Your task to perform on an android device: open device folders in google photos Image 0: 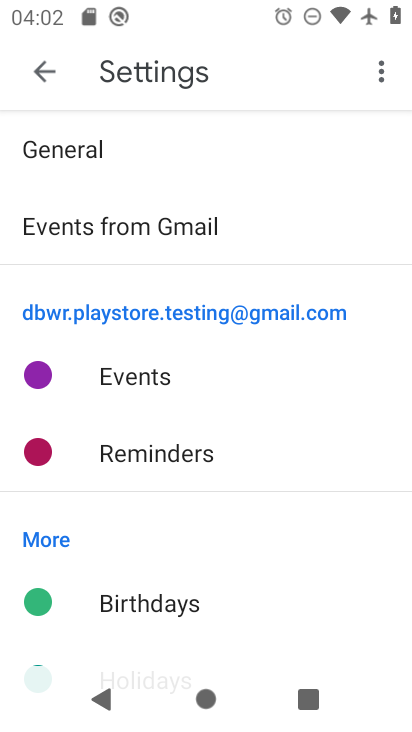
Step 0: press home button
Your task to perform on an android device: open device folders in google photos Image 1: 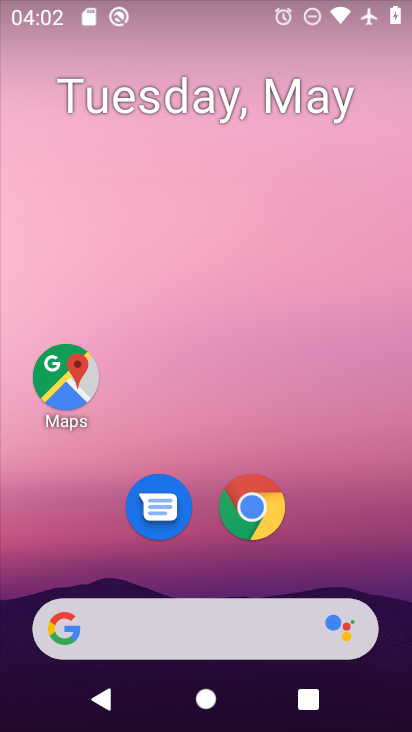
Step 1: drag from (204, 561) to (217, 169)
Your task to perform on an android device: open device folders in google photos Image 2: 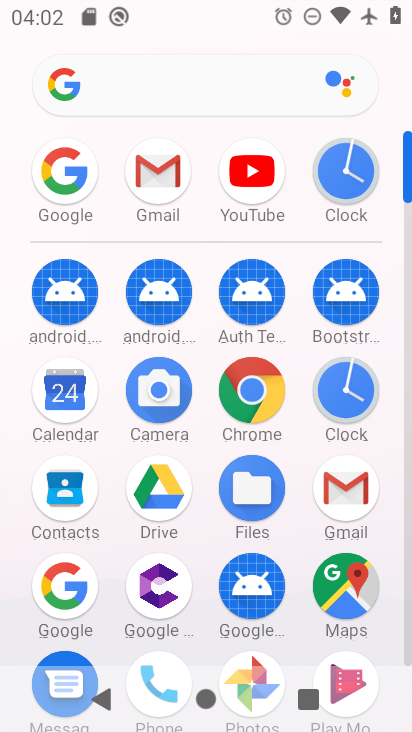
Step 2: drag from (198, 579) to (211, 270)
Your task to perform on an android device: open device folders in google photos Image 3: 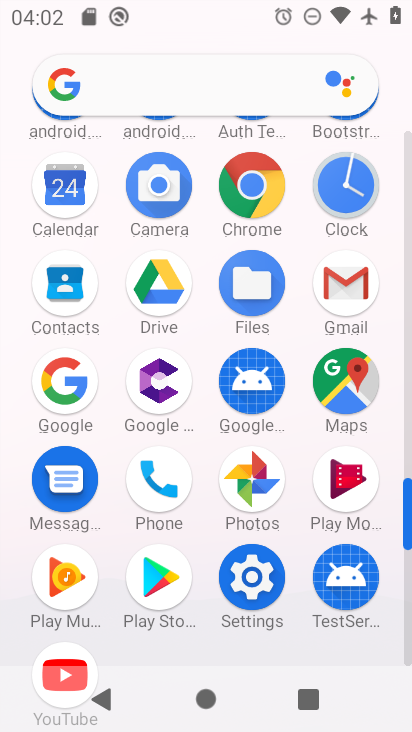
Step 3: click (247, 465)
Your task to perform on an android device: open device folders in google photos Image 4: 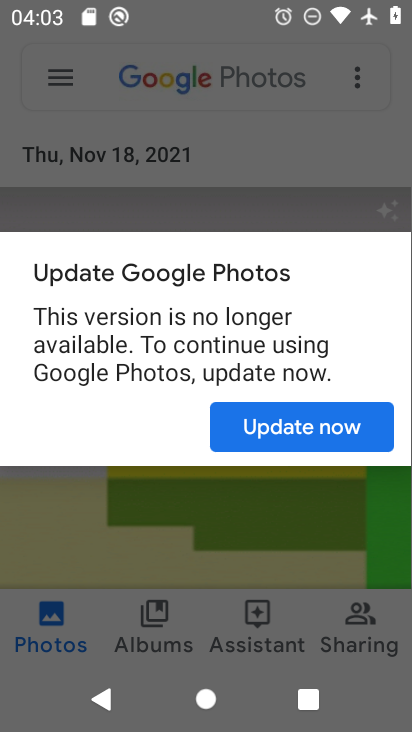
Step 4: press home button
Your task to perform on an android device: open device folders in google photos Image 5: 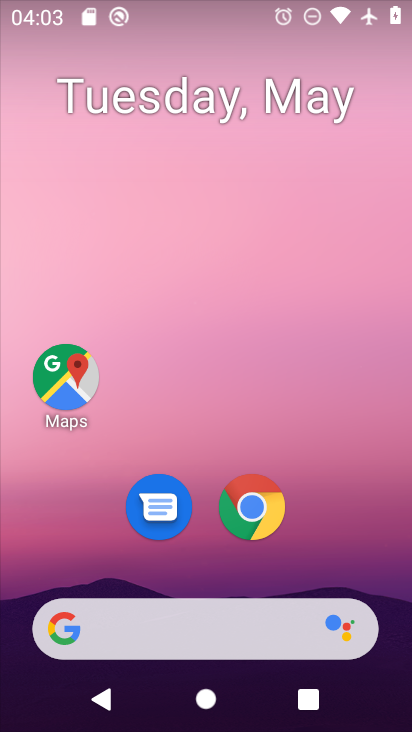
Step 5: drag from (205, 572) to (233, 172)
Your task to perform on an android device: open device folders in google photos Image 6: 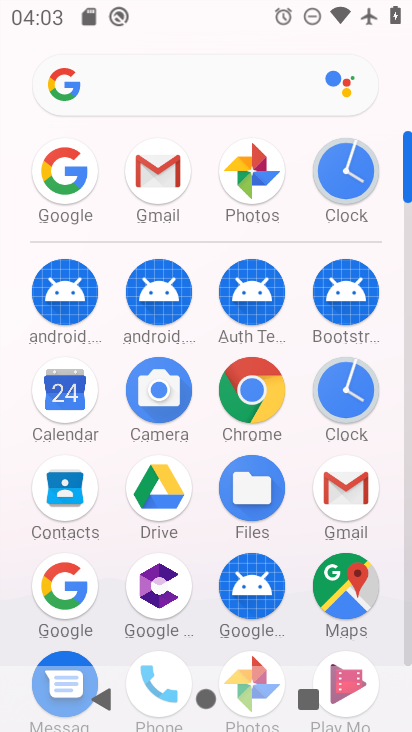
Step 6: click (234, 182)
Your task to perform on an android device: open device folders in google photos Image 7: 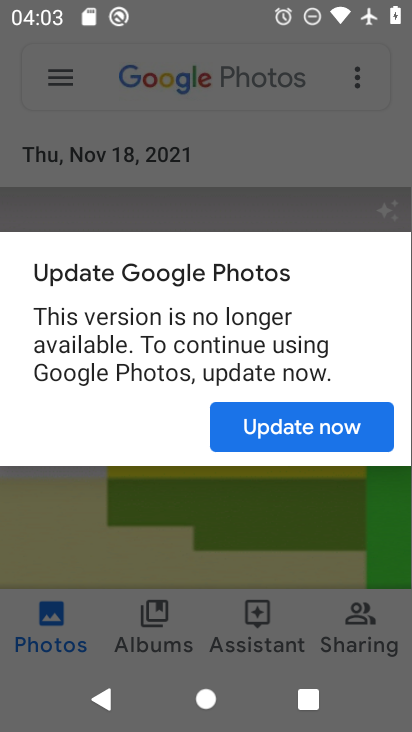
Step 7: click (253, 419)
Your task to perform on an android device: open device folders in google photos Image 8: 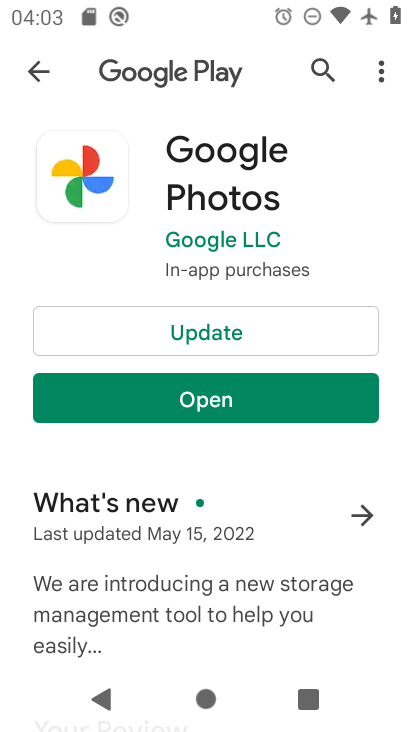
Step 8: click (140, 400)
Your task to perform on an android device: open device folders in google photos Image 9: 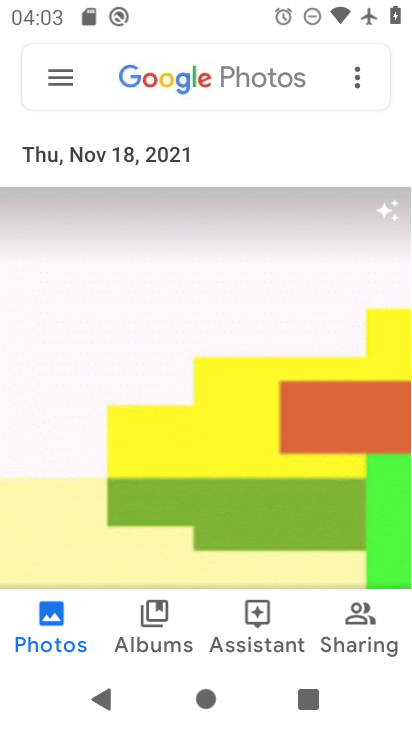
Step 9: click (64, 72)
Your task to perform on an android device: open device folders in google photos Image 10: 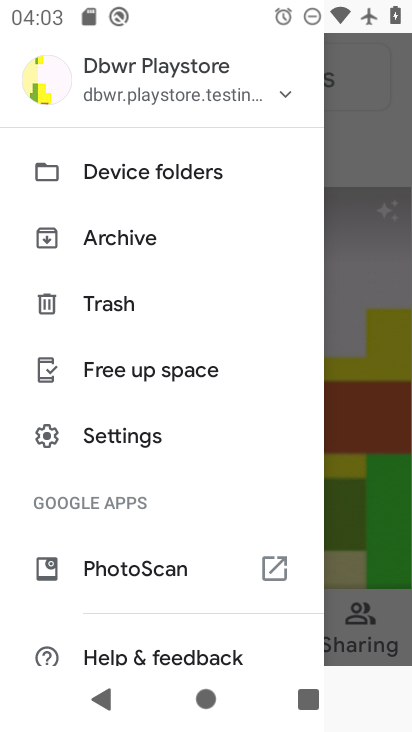
Step 10: click (89, 161)
Your task to perform on an android device: open device folders in google photos Image 11: 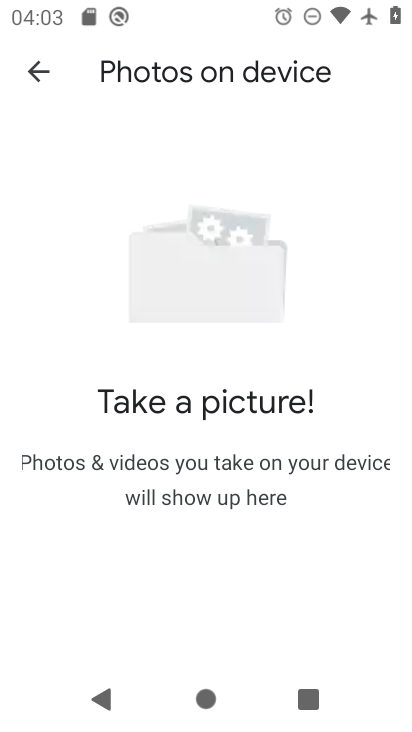
Step 11: task complete